Your task to perform on an android device: Is it going to rain this weekend? Image 0: 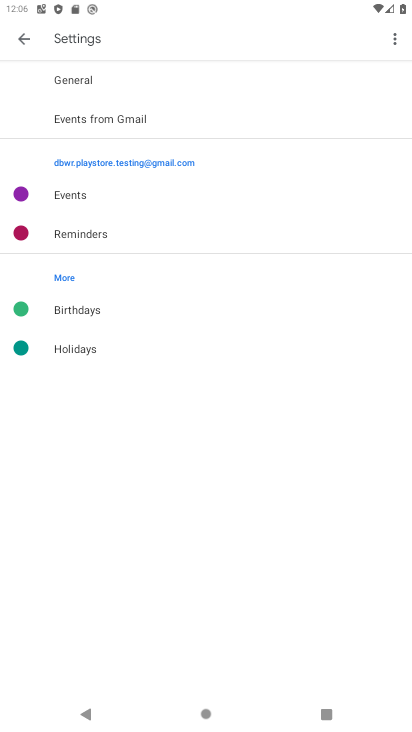
Step 0: press home button
Your task to perform on an android device: Is it going to rain this weekend? Image 1: 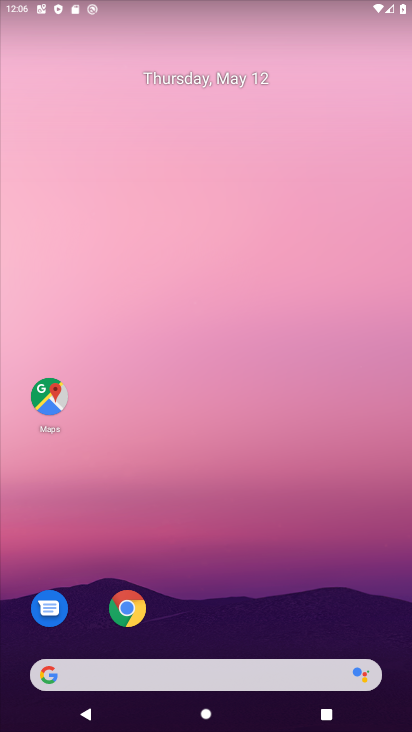
Step 1: click (107, 674)
Your task to perform on an android device: Is it going to rain this weekend? Image 2: 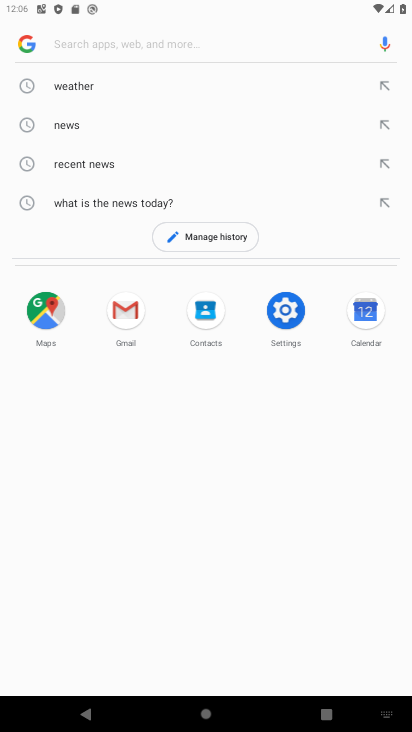
Step 2: click (76, 88)
Your task to perform on an android device: Is it going to rain this weekend? Image 3: 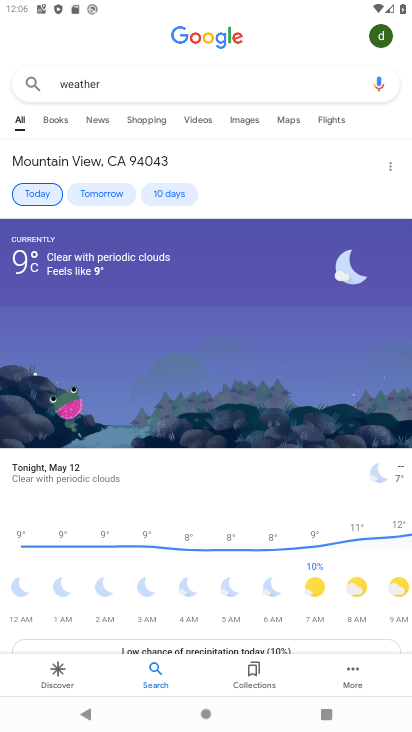
Step 3: click (162, 198)
Your task to perform on an android device: Is it going to rain this weekend? Image 4: 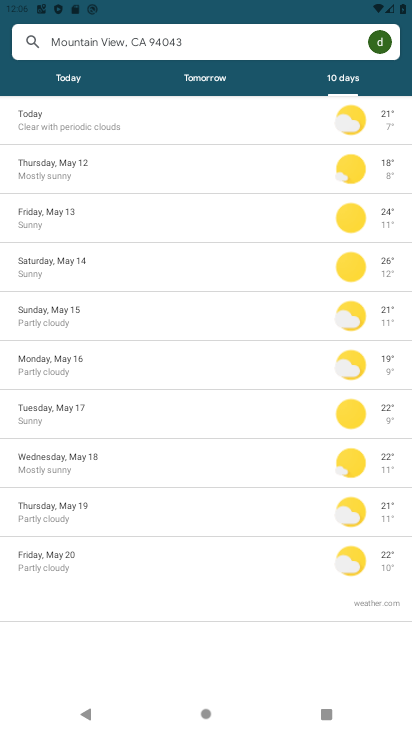
Step 4: task complete